Your task to perform on an android device: Search for seafood restaurants on Google Maps Image 0: 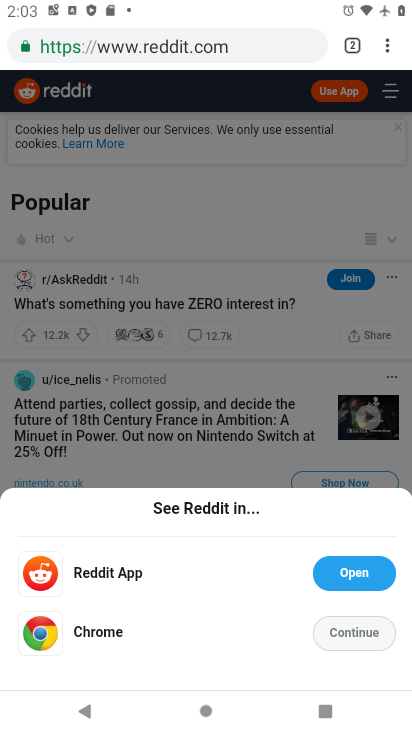
Step 0: press home button
Your task to perform on an android device: Search for seafood restaurants on Google Maps Image 1: 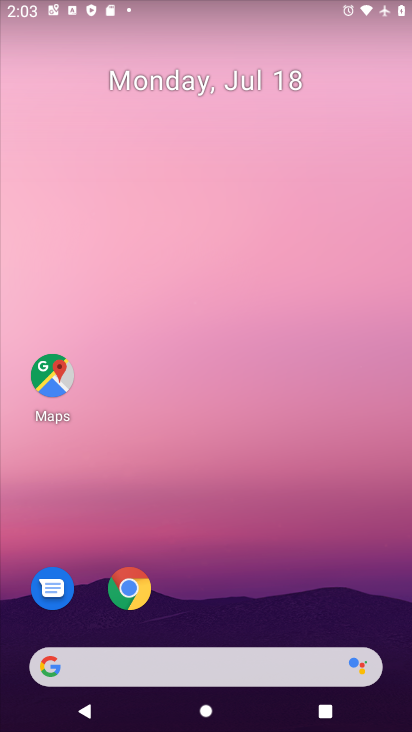
Step 1: drag from (182, 672) to (222, 130)
Your task to perform on an android device: Search for seafood restaurants on Google Maps Image 2: 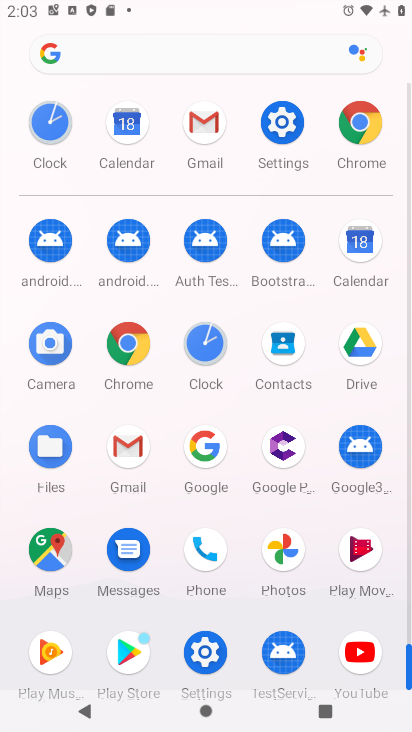
Step 2: click (54, 554)
Your task to perform on an android device: Search for seafood restaurants on Google Maps Image 3: 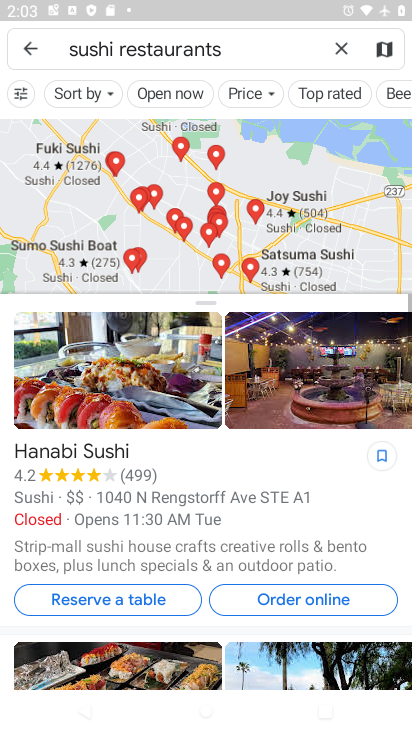
Step 3: click (341, 43)
Your task to perform on an android device: Search for seafood restaurants on Google Maps Image 4: 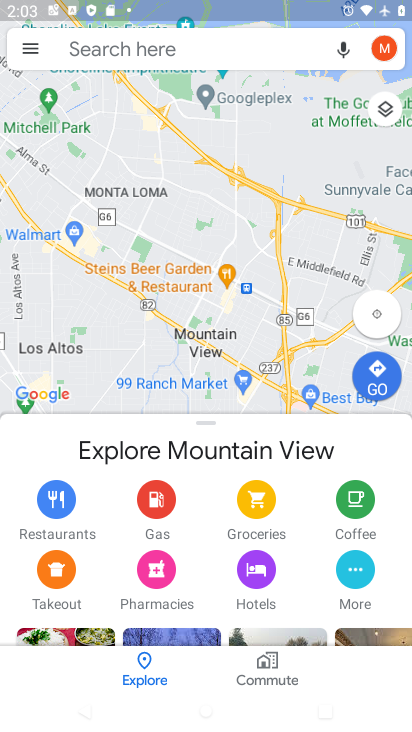
Step 4: click (214, 49)
Your task to perform on an android device: Search for seafood restaurants on Google Maps Image 5: 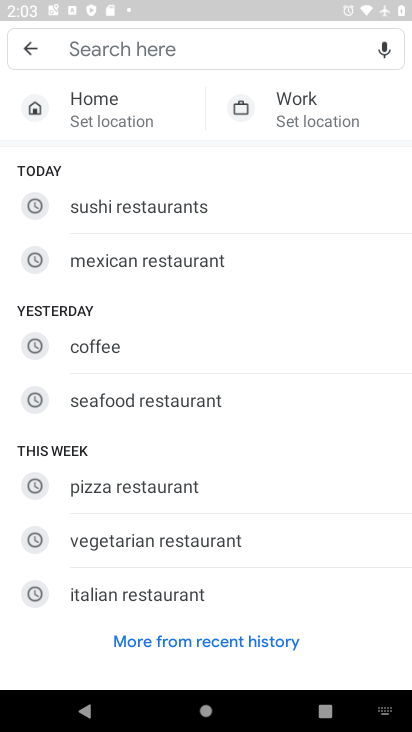
Step 5: click (173, 402)
Your task to perform on an android device: Search for seafood restaurants on Google Maps Image 6: 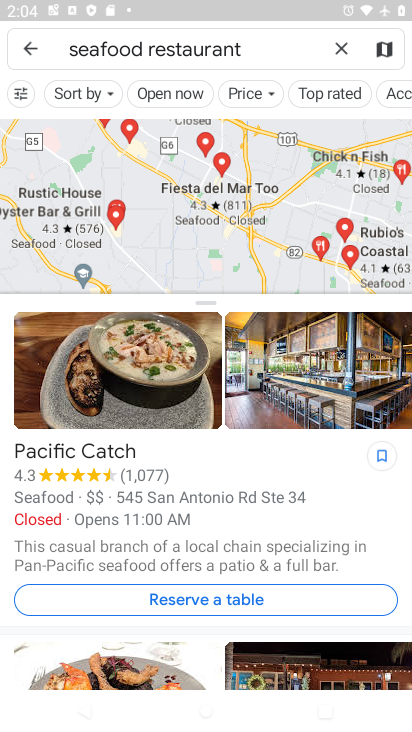
Step 6: task complete